Your task to perform on an android device: turn off location Image 0: 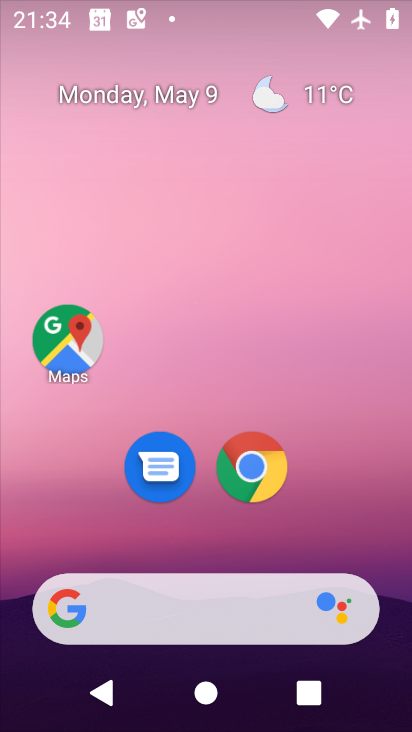
Step 0: drag from (312, 559) to (345, 207)
Your task to perform on an android device: turn off location Image 1: 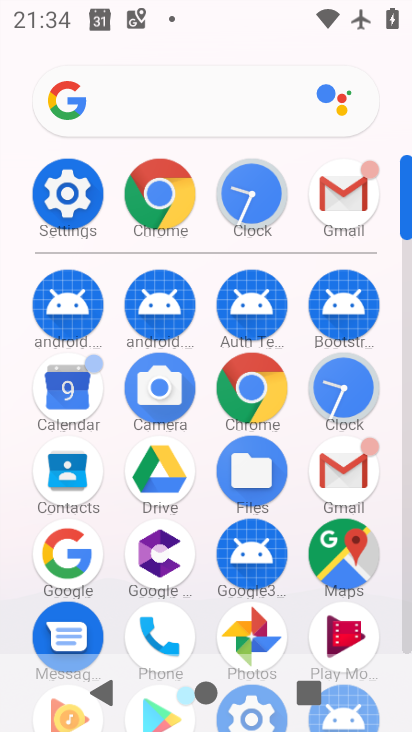
Step 1: click (79, 192)
Your task to perform on an android device: turn off location Image 2: 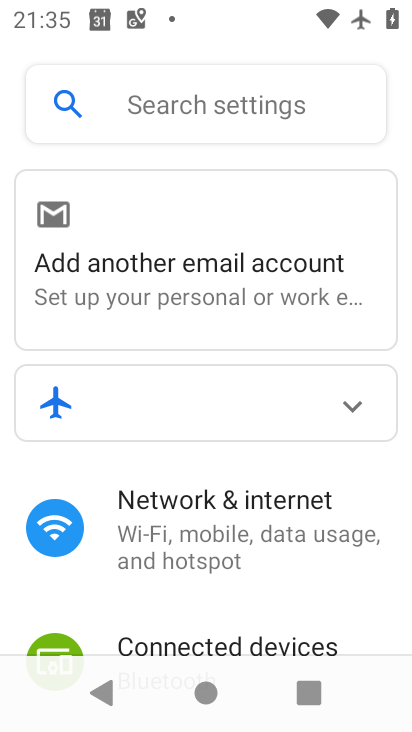
Step 2: drag from (274, 597) to (323, 126)
Your task to perform on an android device: turn off location Image 3: 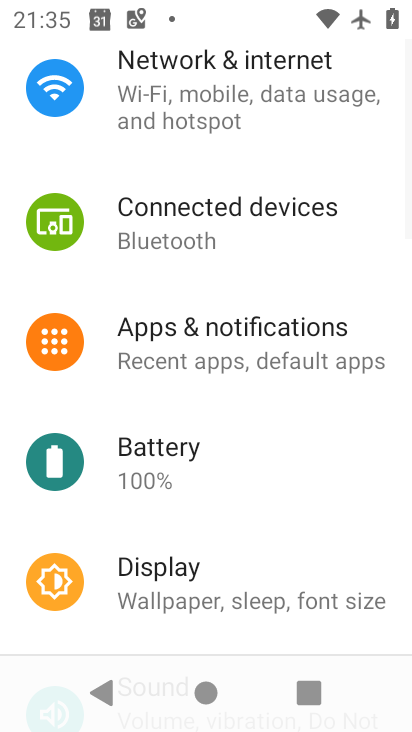
Step 3: drag from (223, 488) to (306, 143)
Your task to perform on an android device: turn off location Image 4: 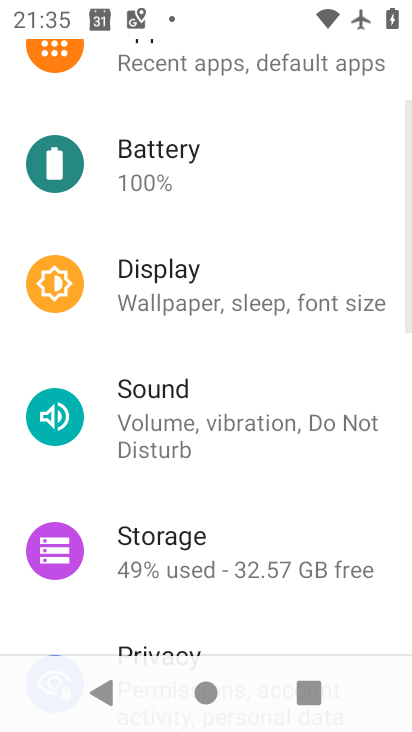
Step 4: drag from (226, 583) to (325, 209)
Your task to perform on an android device: turn off location Image 5: 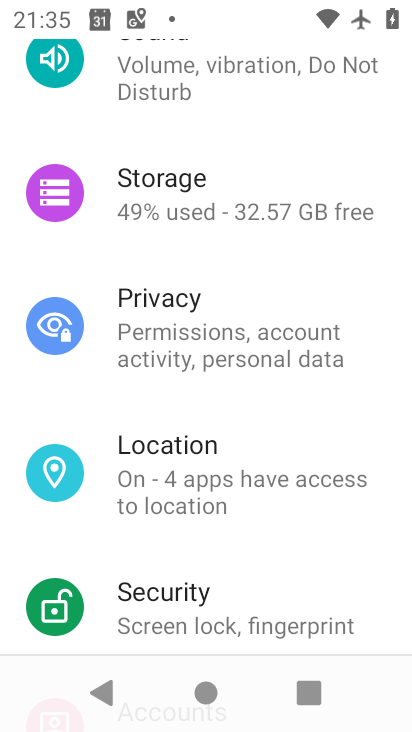
Step 5: click (231, 449)
Your task to perform on an android device: turn off location Image 6: 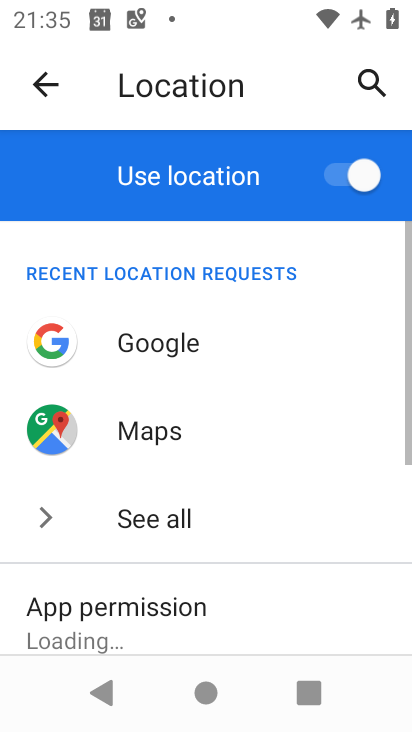
Step 6: click (330, 166)
Your task to perform on an android device: turn off location Image 7: 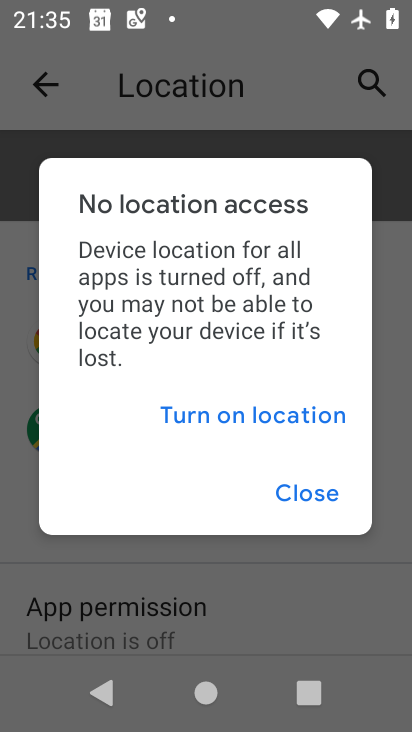
Step 7: click (307, 487)
Your task to perform on an android device: turn off location Image 8: 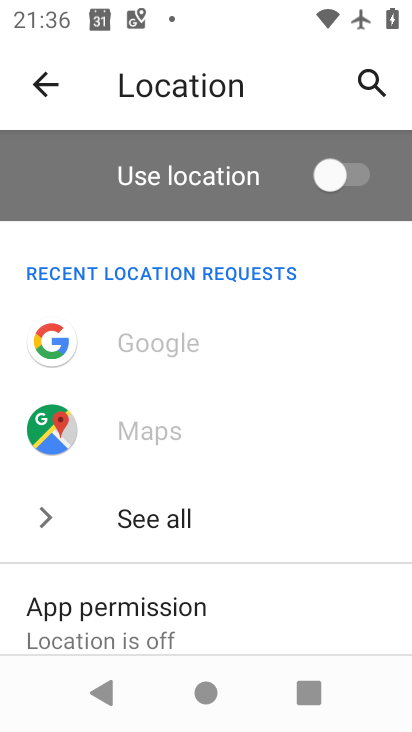
Step 8: task complete